Your task to perform on an android device: Show me the alarms in the clock app Image 0: 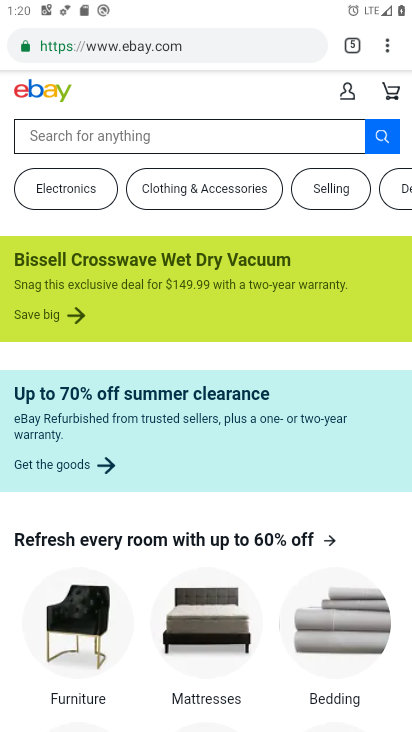
Step 0: press home button
Your task to perform on an android device: Show me the alarms in the clock app Image 1: 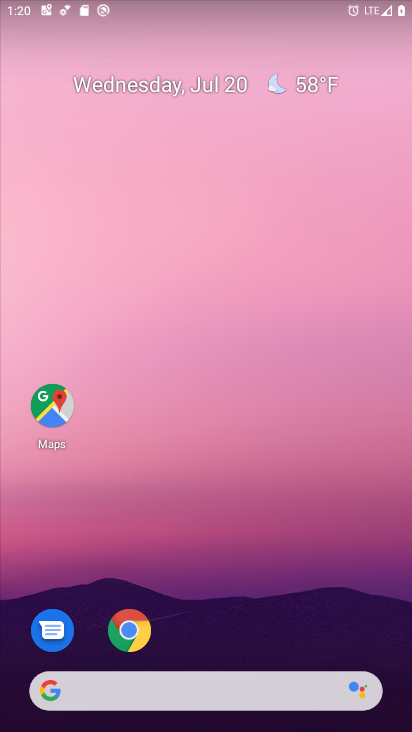
Step 1: drag from (256, 638) to (213, 175)
Your task to perform on an android device: Show me the alarms in the clock app Image 2: 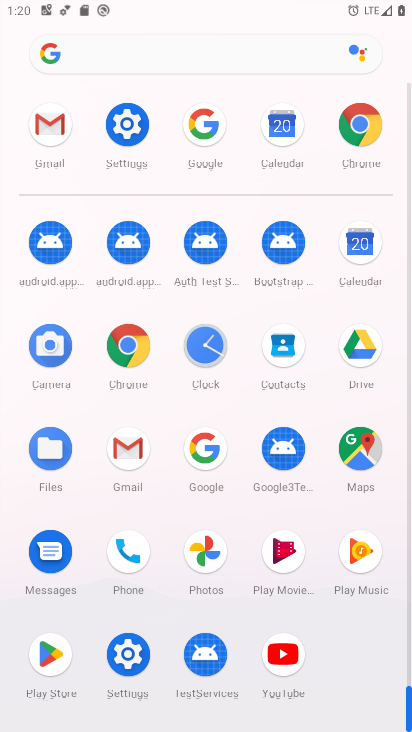
Step 2: click (199, 358)
Your task to perform on an android device: Show me the alarms in the clock app Image 3: 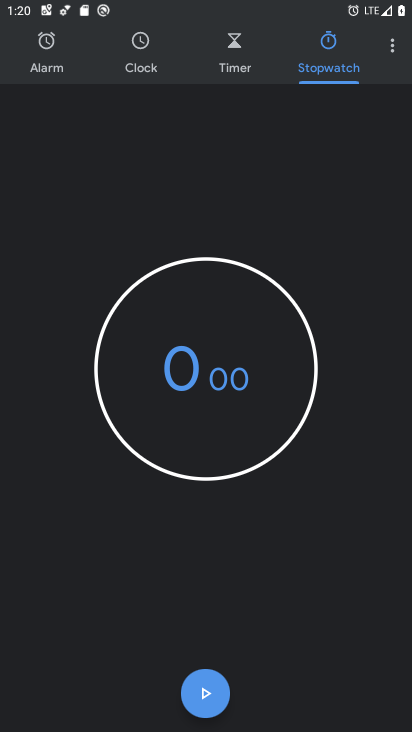
Step 3: click (39, 78)
Your task to perform on an android device: Show me the alarms in the clock app Image 4: 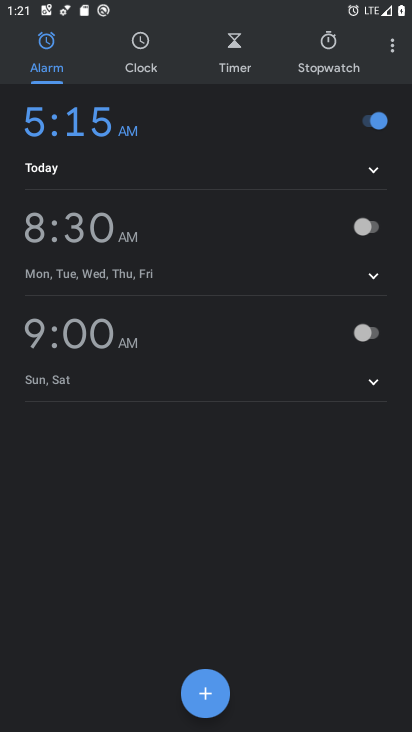
Step 4: task complete